Your task to perform on an android device: change the clock style Image 0: 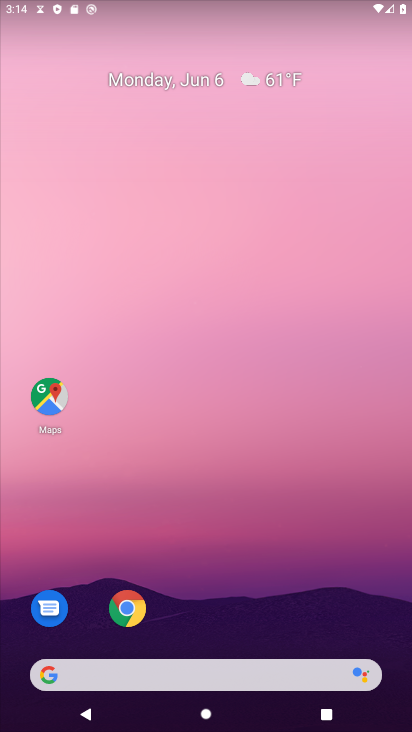
Step 0: drag from (273, 564) to (332, 0)
Your task to perform on an android device: change the clock style Image 1: 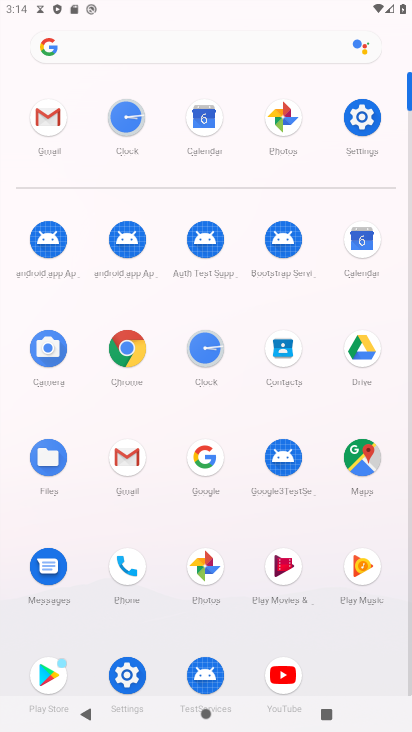
Step 1: click (204, 358)
Your task to perform on an android device: change the clock style Image 2: 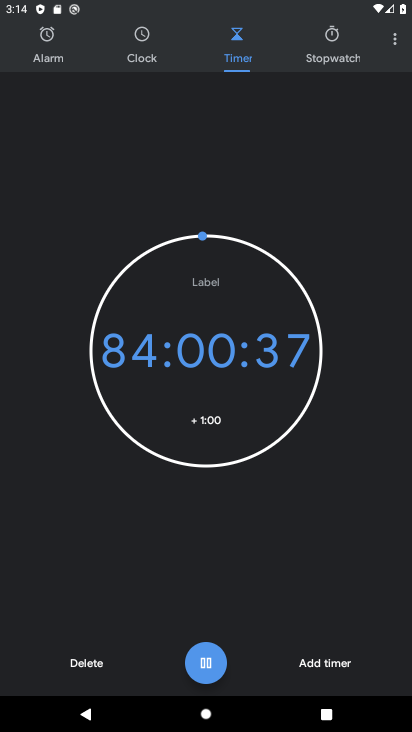
Step 2: click (388, 55)
Your task to perform on an android device: change the clock style Image 3: 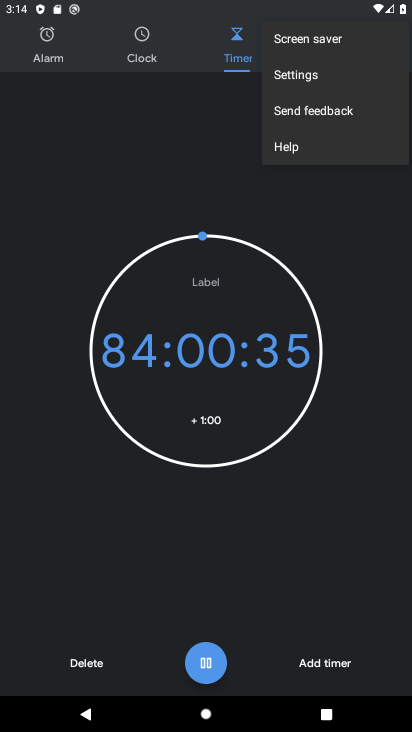
Step 3: click (299, 77)
Your task to perform on an android device: change the clock style Image 4: 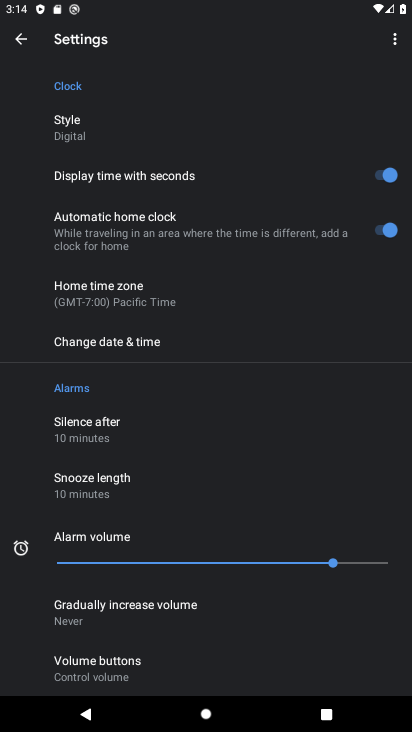
Step 4: drag from (66, 126) to (93, 615)
Your task to perform on an android device: change the clock style Image 5: 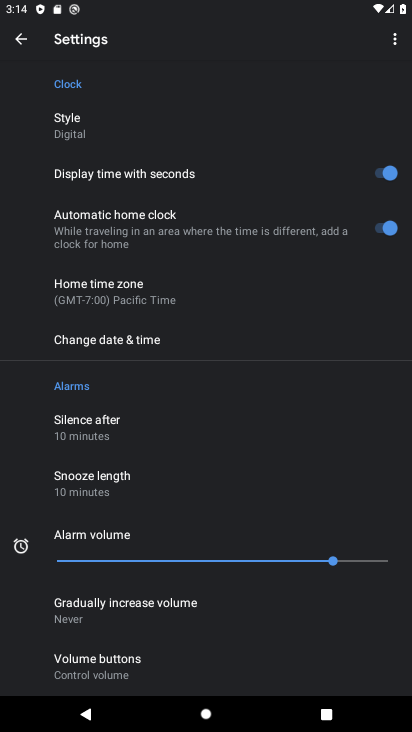
Step 5: click (64, 125)
Your task to perform on an android device: change the clock style Image 6: 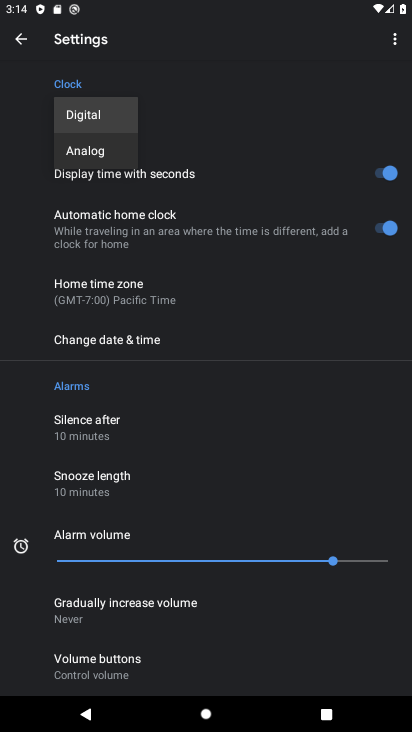
Step 6: click (99, 153)
Your task to perform on an android device: change the clock style Image 7: 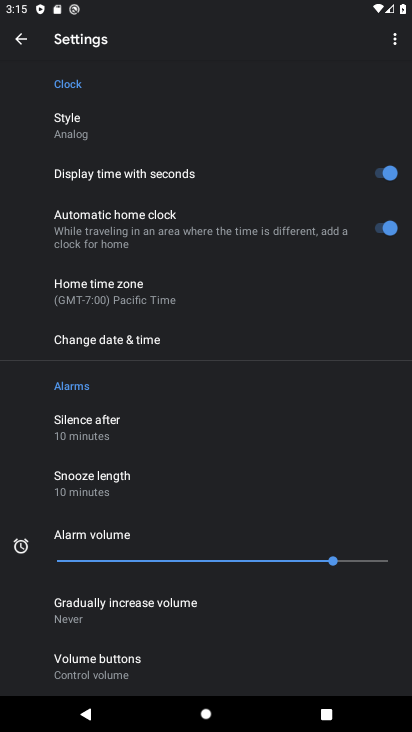
Step 7: task complete